Your task to perform on an android device: turn on location history Image 0: 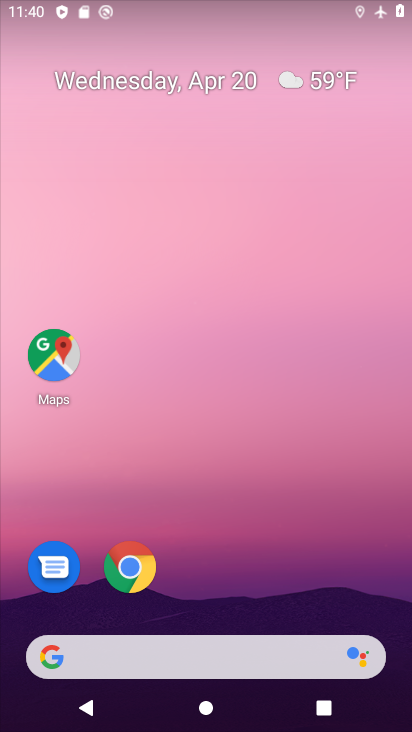
Step 0: drag from (230, 612) to (172, 167)
Your task to perform on an android device: turn on location history Image 1: 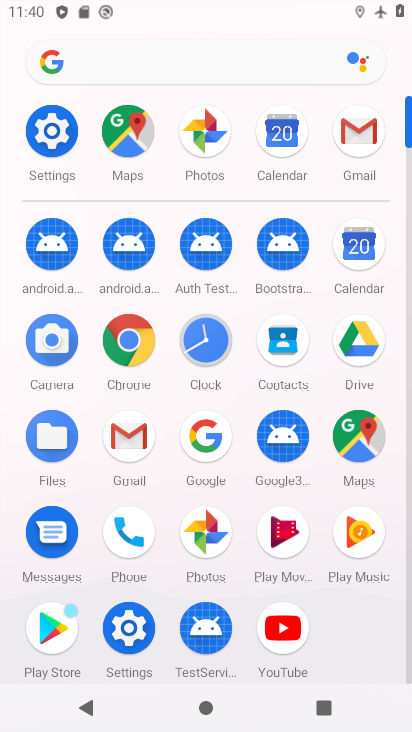
Step 1: click (35, 137)
Your task to perform on an android device: turn on location history Image 2: 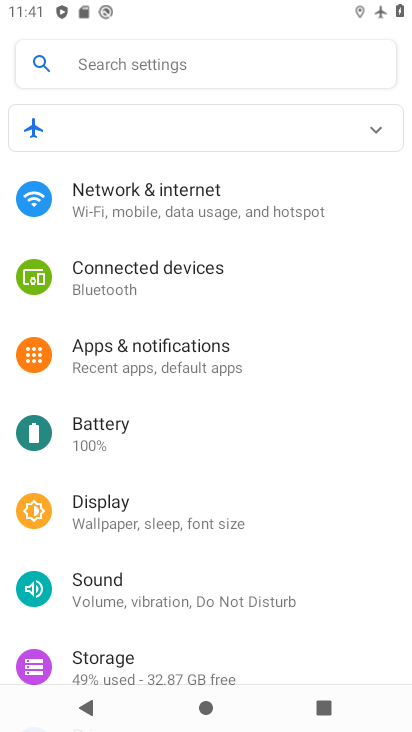
Step 2: drag from (120, 520) to (98, 447)
Your task to perform on an android device: turn on location history Image 3: 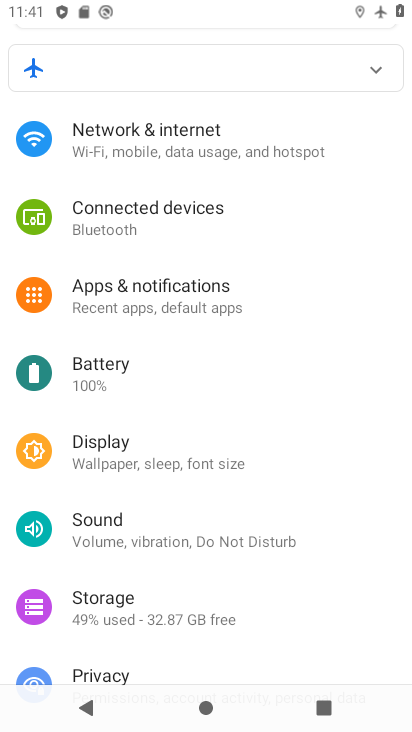
Step 3: drag from (129, 538) to (109, 462)
Your task to perform on an android device: turn on location history Image 4: 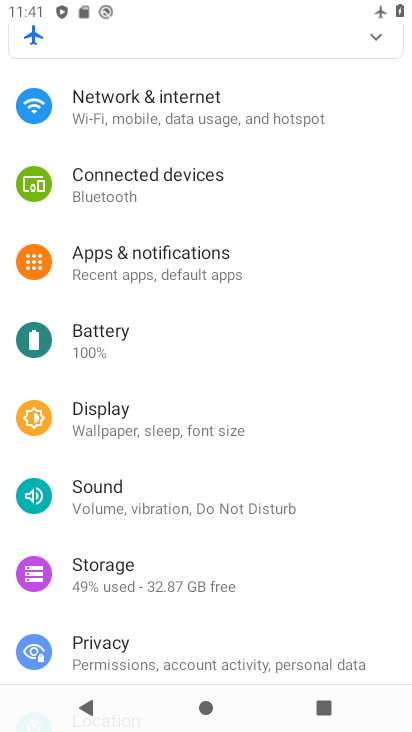
Step 4: drag from (144, 562) to (134, 491)
Your task to perform on an android device: turn on location history Image 5: 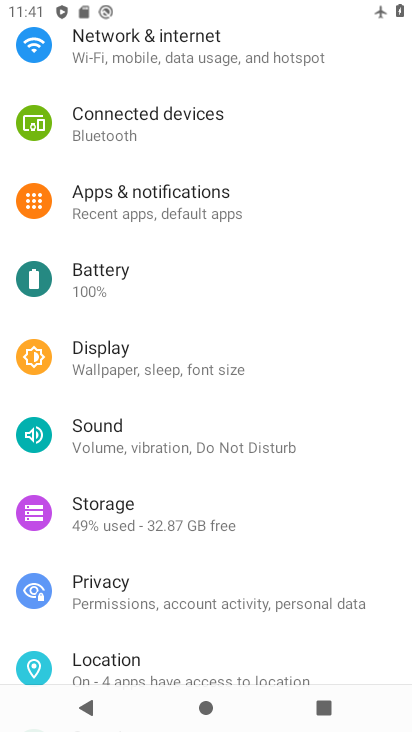
Step 5: drag from (141, 582) to (104, 464)
Your task to perform on an android device: turn on location history Image 6: 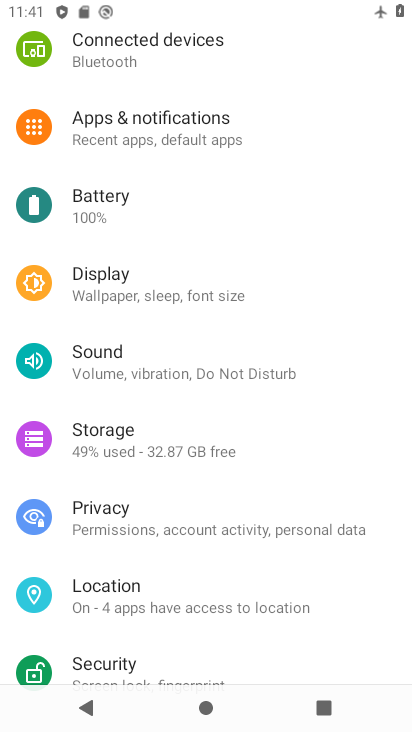
Step 6: click (109, 581)
Your task to perform on an android device: turn on location history Image 7: 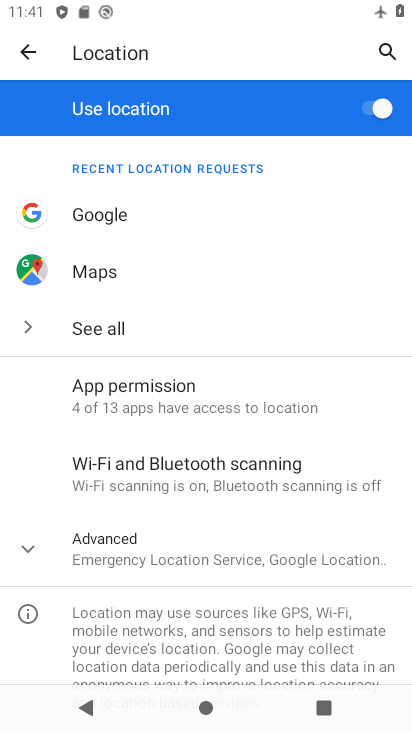
Step 7: click (95, 548)
Your task to perform on an android device: turn on location history Image 8: 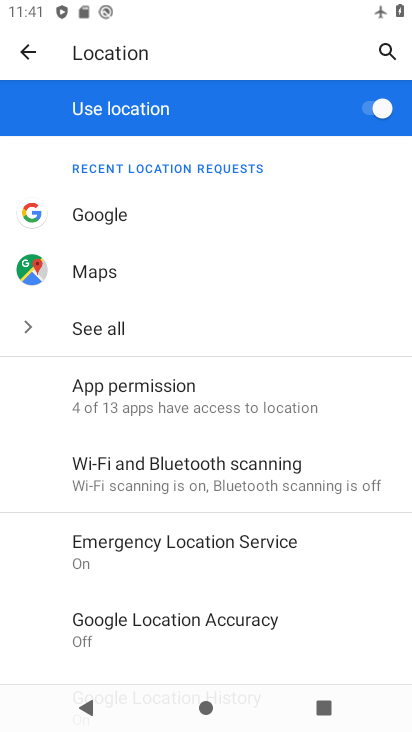
Step 8: drag from (115, 594) to (101, 501)
Your task to perform on an android device: turn on location history Image 9: 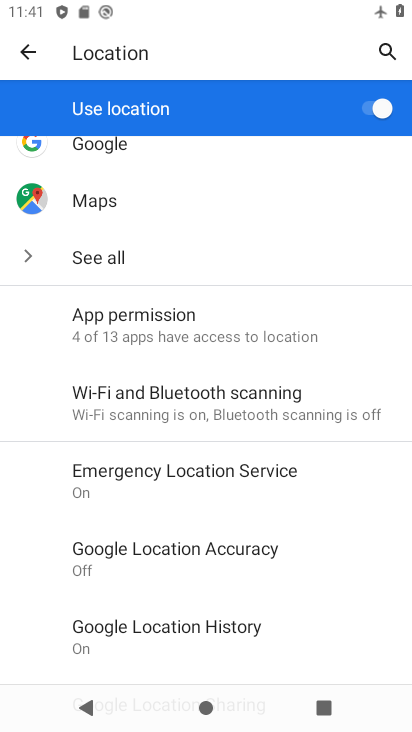
Step 9: drag from (131, 582) to (125, 472)
Your task to perform on an android device: turn on location history Image 10: 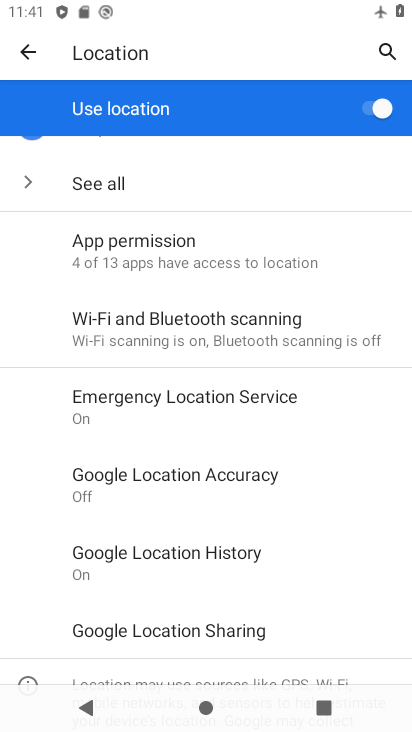
Step 10: click (152, 558)
Your task to perform on an android device: turn on location history Image 11: 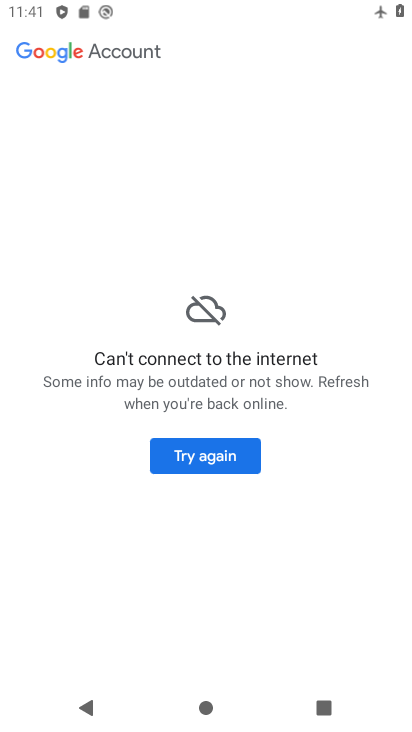
Step 11: click (212, 452)
Your task to perform on an android device: turn on location history Image 12: 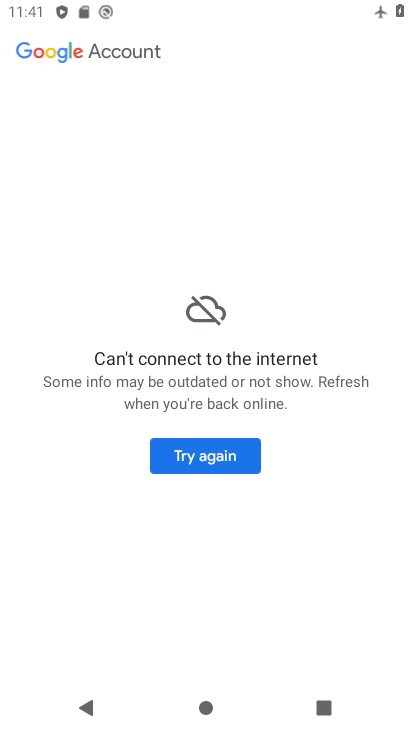
Step 12: task complete